Your task to perform on an android device: Open Google Maps and go to "Timeline" Image 0: 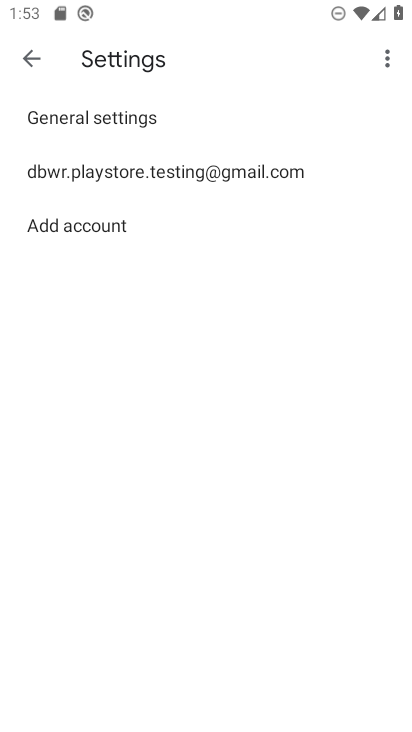
Step 0: press home button
Your task to perform on an android device: Open Google Maps and go to "Timeline" Image 1: 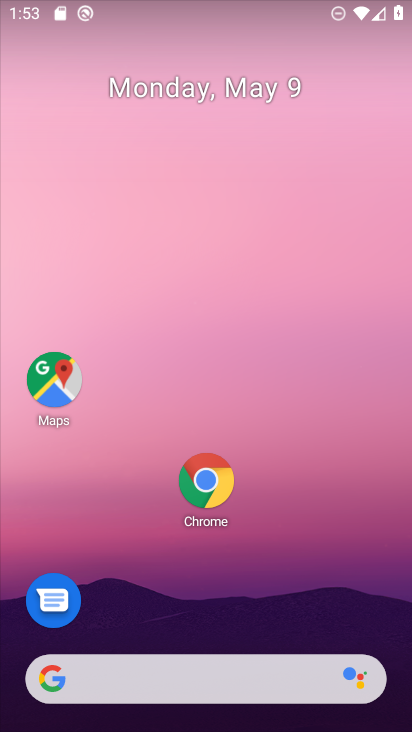
Step 1: drag from (149, 676) to (264, 160)
Your task to perform on an android device: Open Google Maps and go to "Timeline" Image 2: 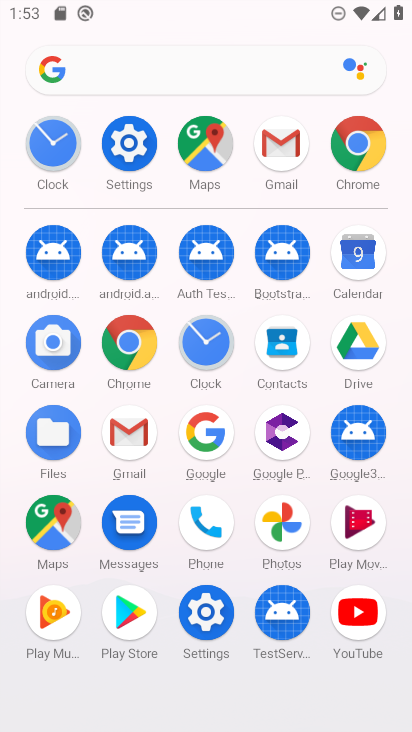
Step 2: click (210, 155)
Your task to perform on an android device: Open Google Maps and go to "Timeline" Image 3: 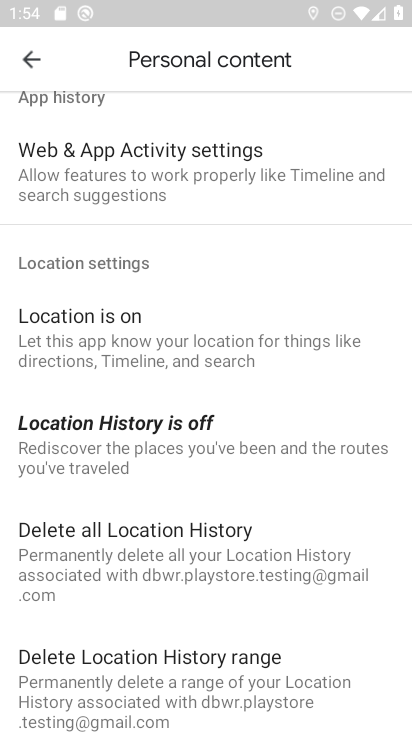
Step 3: click (33, 54)
Your task to perform on an android device: Open Google Maps and go to "Timeline" Image 4: 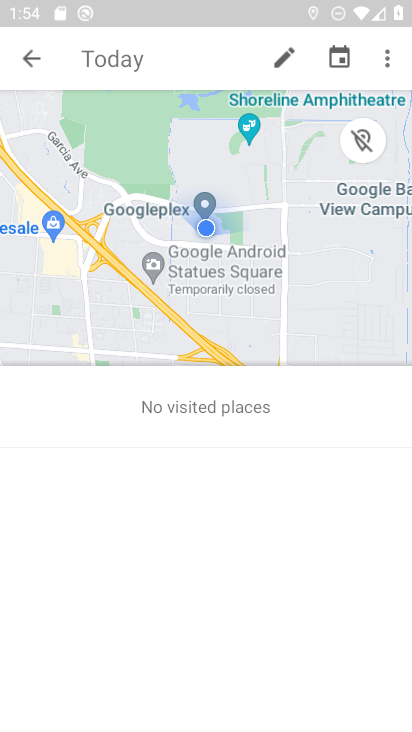
Step 4: click (34, 57)
Your task to perform on an android device: Open Google Maps and go to "Timeline" Image 5: 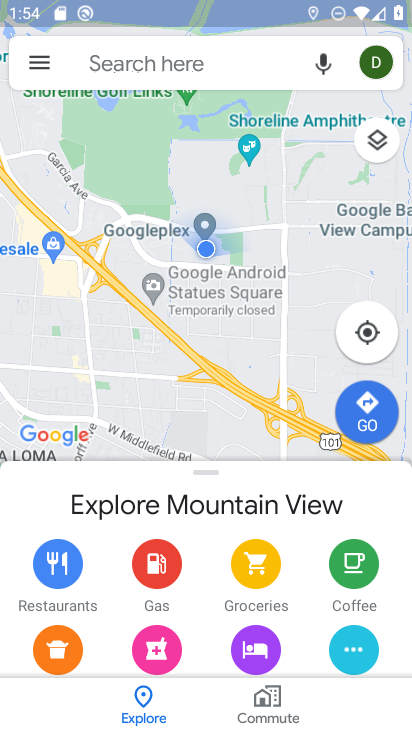
Step 5: click (34, 58)
Your task to perform on an android device: Open Google Maps and go to "Timeline" Image 6: 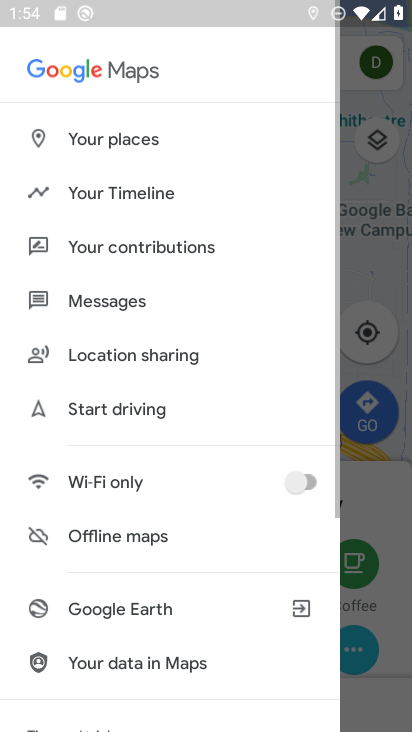
Step 6: click (136, 190)
Your task to perform on an android device: Open Google Maps and go to "Timeline" Image 7: 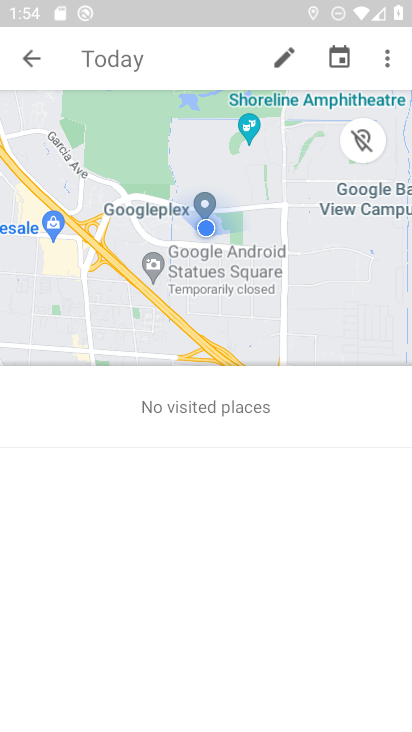
Step 7: task complete